Your task to perform on an android device: visit the assistant section in the google photos Image 0: 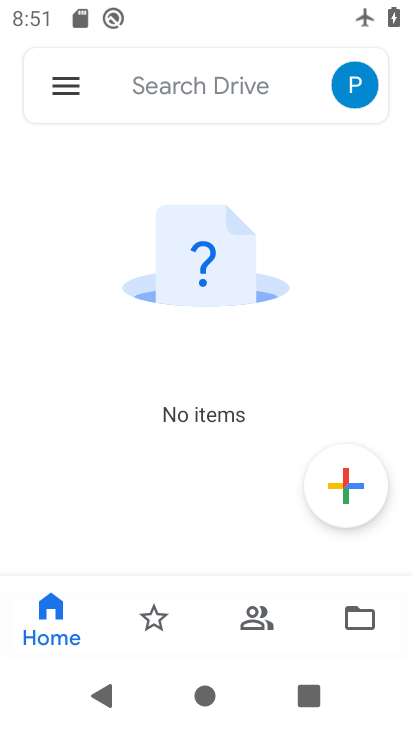
Step 0: press home button
Your task to perform on an android device: visit the assistant section in the google photos Image 1: 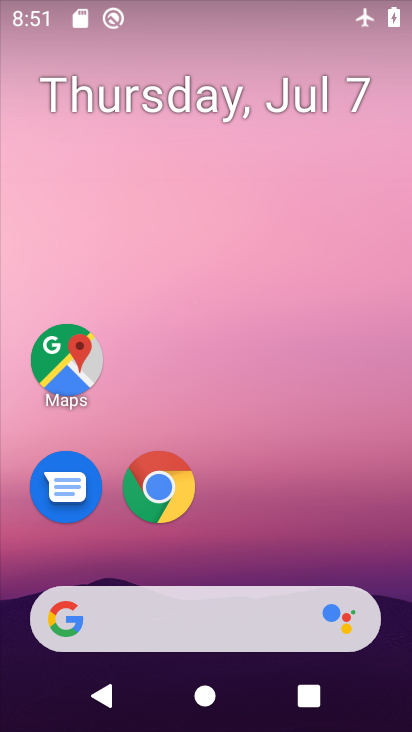
Step 1: drag from (371, 514) to (389, 132)
Your task to perform on an android device: visit the assistant section in the google photos Image 2: 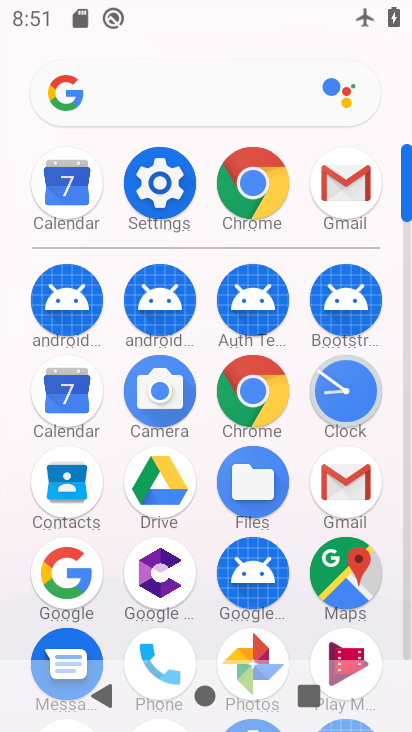
Step 2: drag from (397, 487) to (390, 261)
Your task to perform on an android device: visit the assistant section in the google photos Image 3: 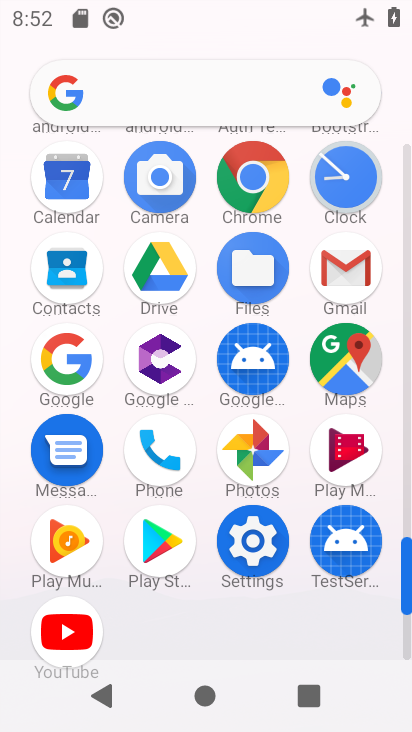
Step 3: click (248, 456)
Your task to perform on an android device: visit the assistant section in the google photos Image 4: 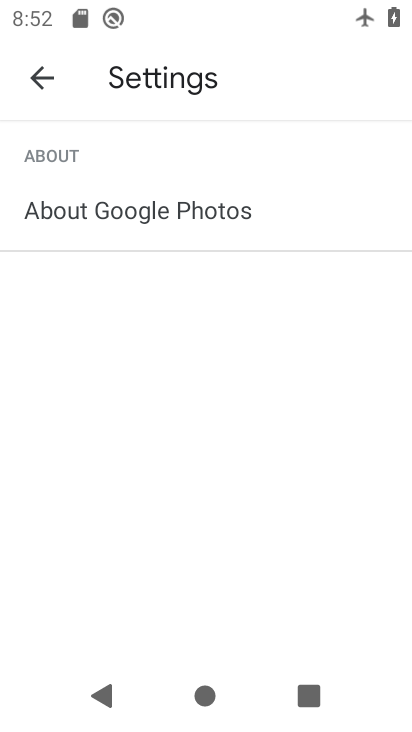
Step 4: press back button
Your task to perform on an android device: visit the assistant section in the google photos Image 5: 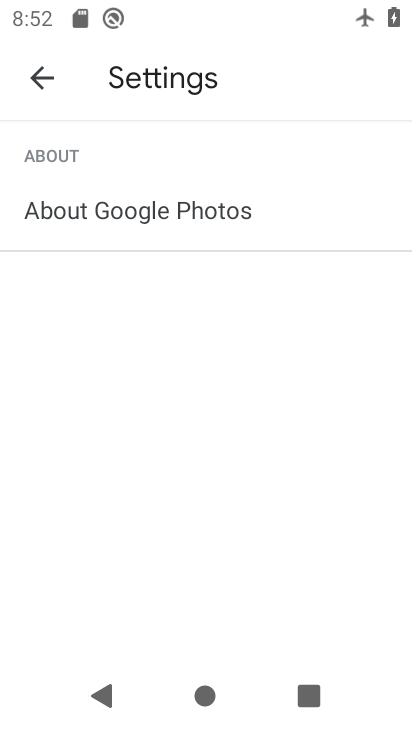
Step 5: press back button
Your task to perform on an android device: visit the assistant section in the google photos Image 6: 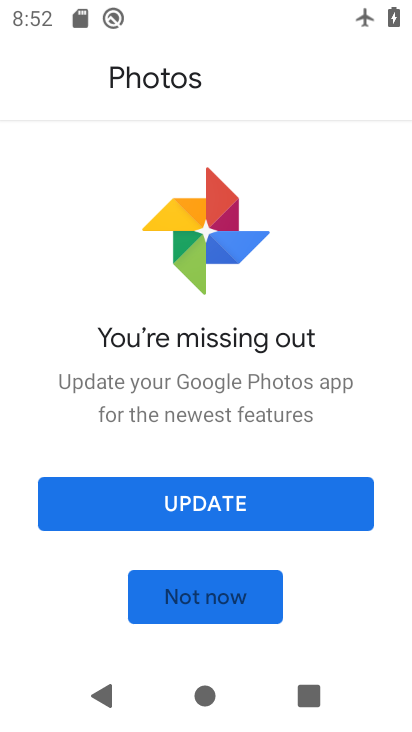
Step 6: click (298, 504)
Your task to perform on an android device: visit the assistant section in the google photos Image 7: 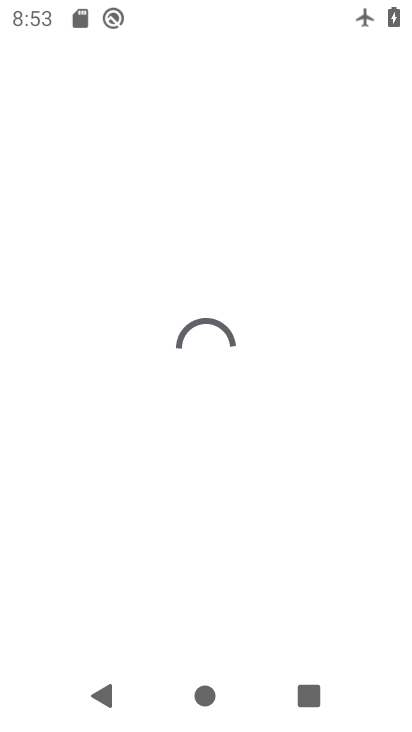
Step 7: task complete